Your task to perform on an android device: change the clock style Image 0: 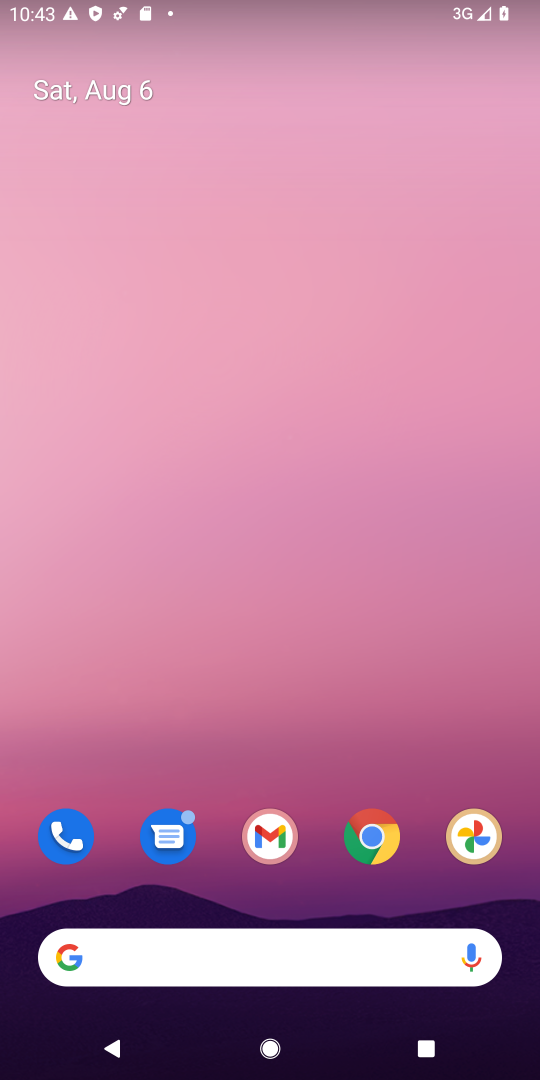
Step 0: drag from (312, 728) to (312, 17)
Your task to perform on an android device: change the clock style Image 1: 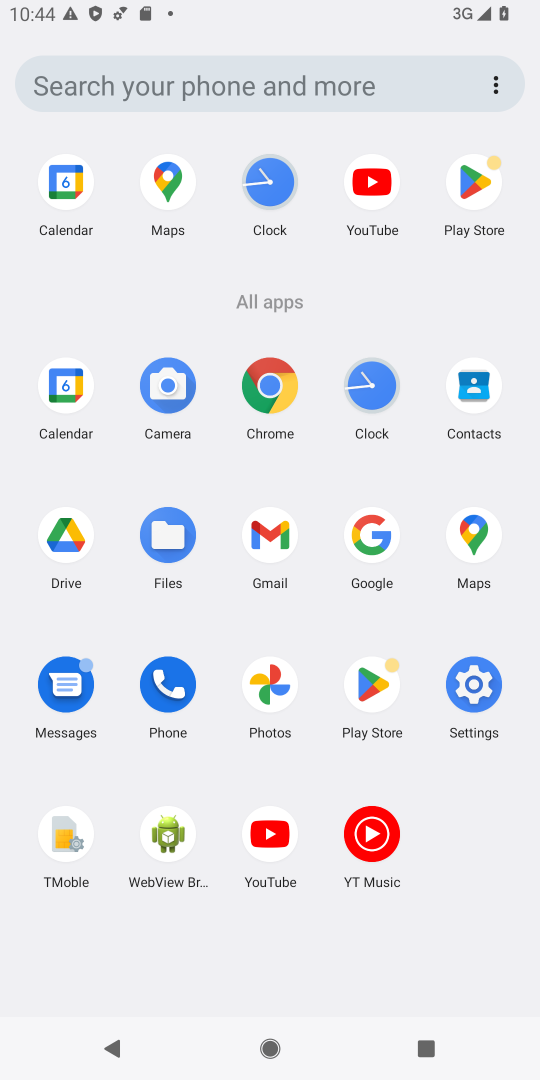
Step 1: click (372, 390)
Your task to perform on an android device: change the clock style Image 2: 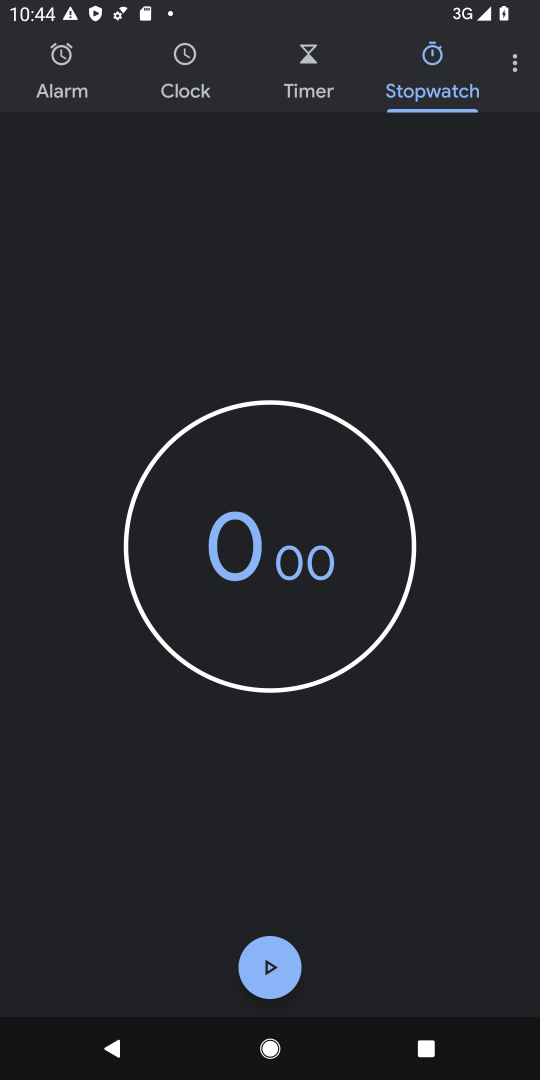
Step 2: click (517, 66)
Your task to perform on an android device: change the clock style Image 3: 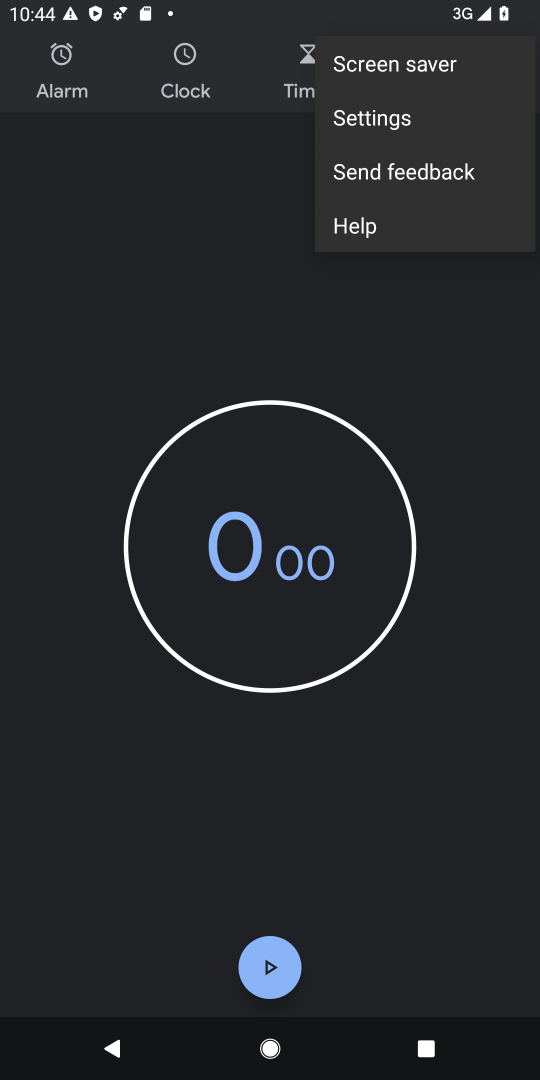
Step 3: click (344, 134)
Your task to perform on an android device: change the clock style Image 4: 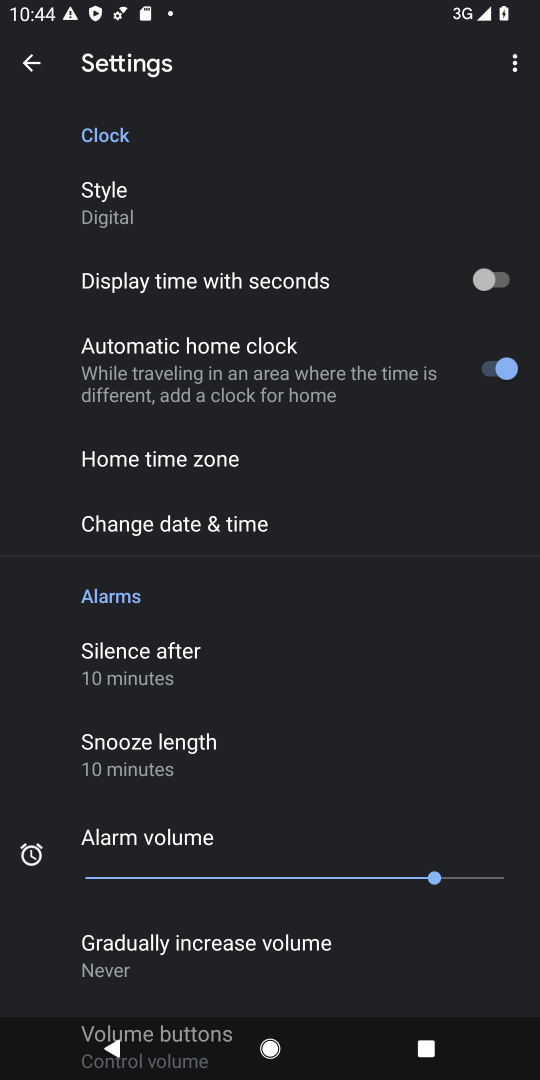
Step 4: click (92, 225)
Your task to perform on an android device: change the clock style Image 5: 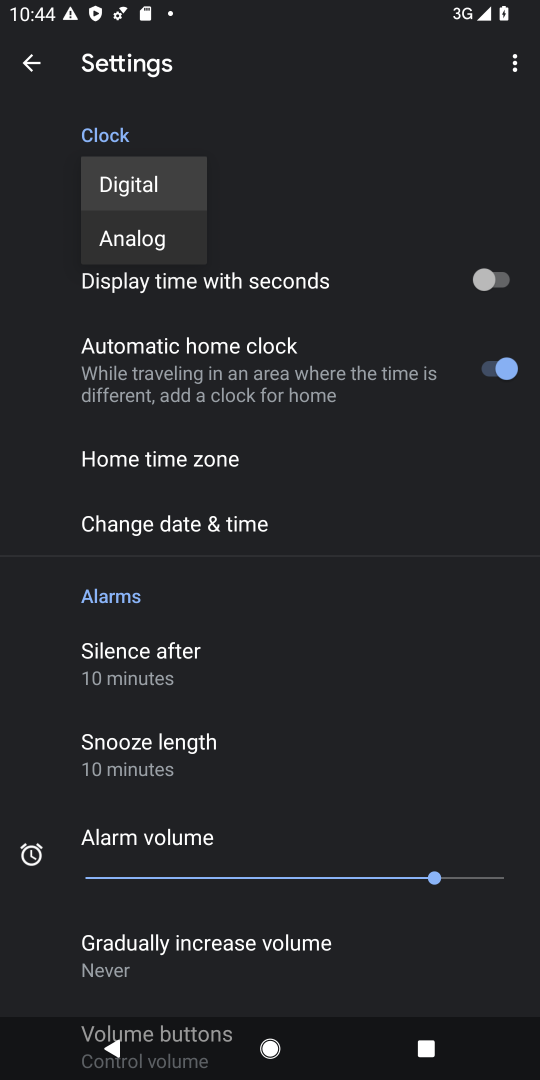
Step 5: click (132, 239)
Your task to perform on an android device: change the clock style Image 6: 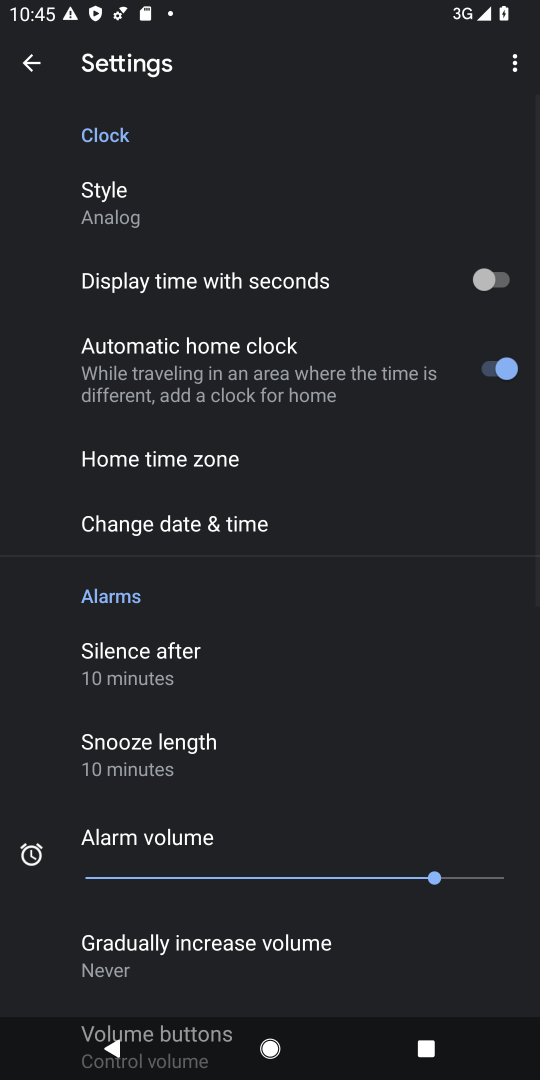
Step 6: task complete